Your task to perform on an android device: delete browsing data in the chrome app Image 0: 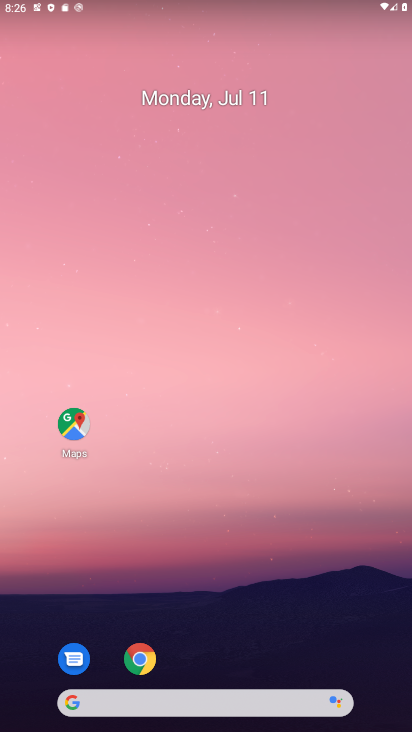
Step 0: drag from (222, 412) to (269, 245)
Your task to perform on an android device: delete browsing data in the chrome app Image 1: 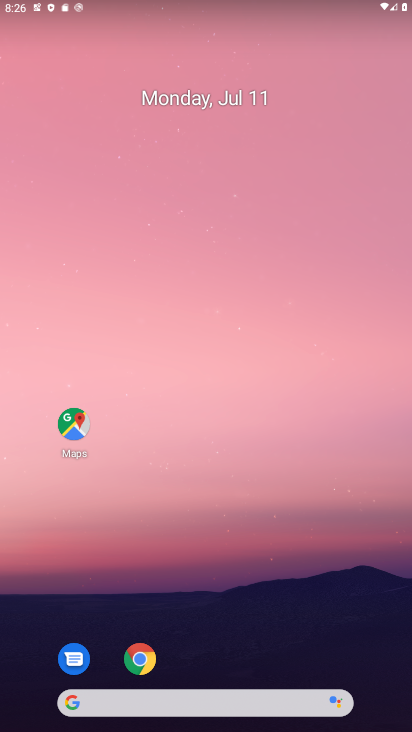
Step 1: drag from (176, 664) to (240, 112)
Your task to perform on an android device: delete browsing data in the chrome app Image 2: 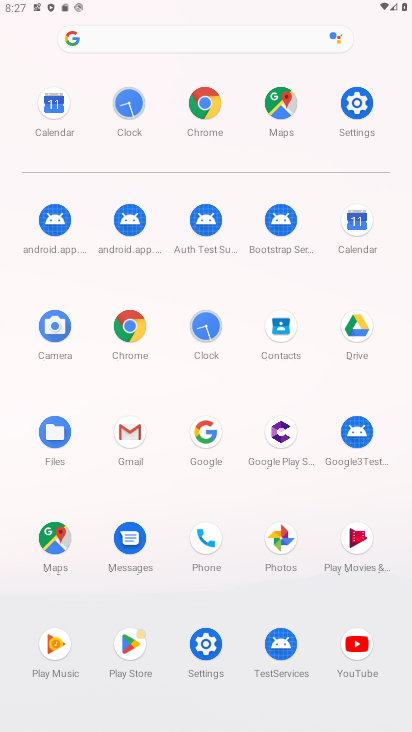
Step 2: click (121, 316)
Your task to perform on an android device: delete browsing data in the chrome app Image 3: 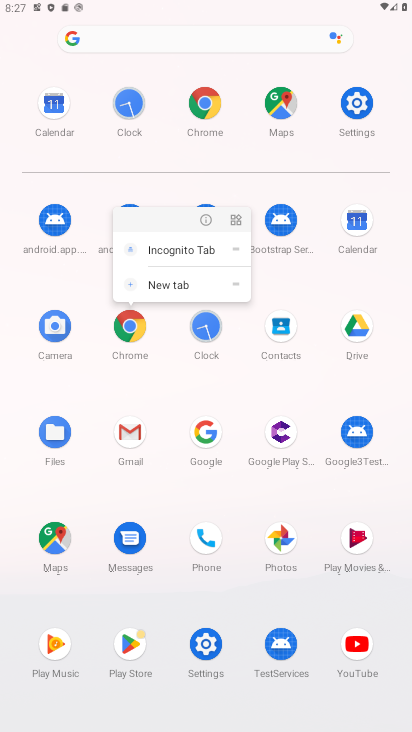
Step 3: click (205, 215)
Your task to perform on an android device: delete browsing data in the chrome app Image 4: 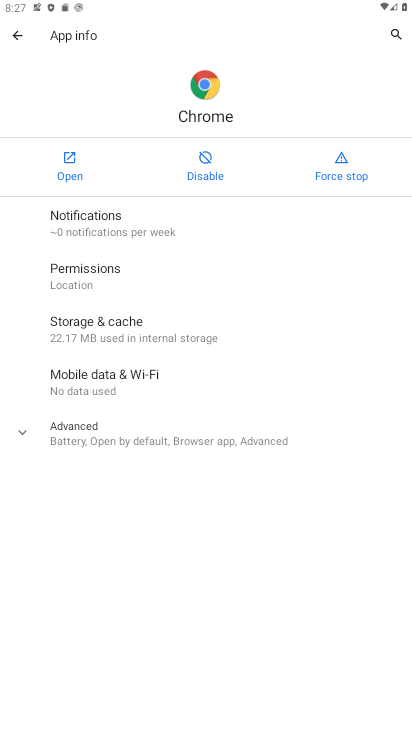
Step 4: click (90, 169)
Your task to perform on an android device: delete browsing data in the chrome app Image 5: 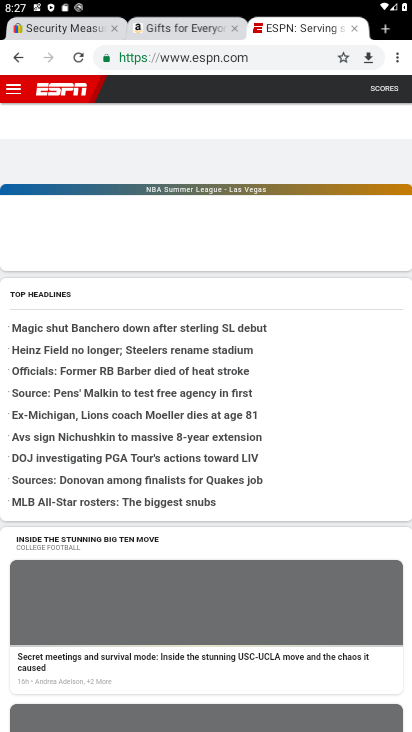
Step 5: drag from (172, 499) to (273, 568)
Your task to perform on an android device: delete browsing data in the chrome app Image 6: 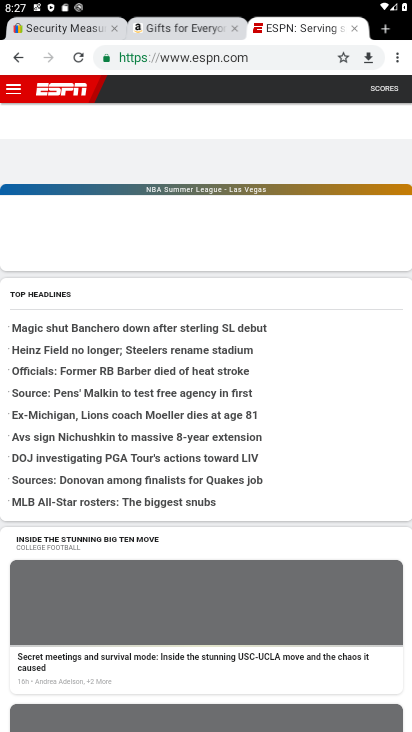
Step 6: click (395, 62)
Your task to perform on an android device: delete browsing data in the chrome app Image 7: 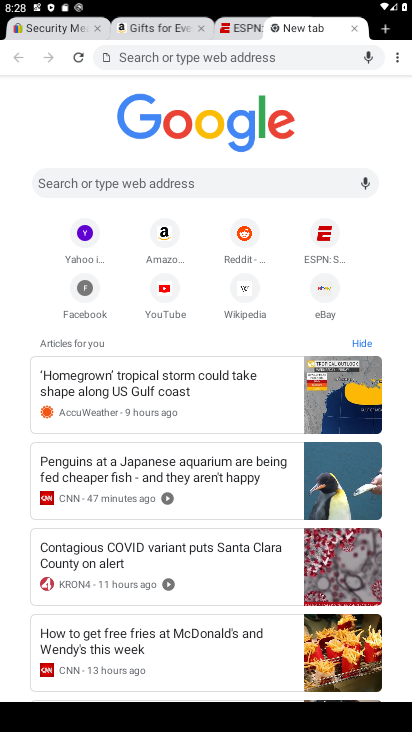
Step 7: click (392, 61)
Your task to perform on an android device: delete browsing data in the chrome app Image 8: 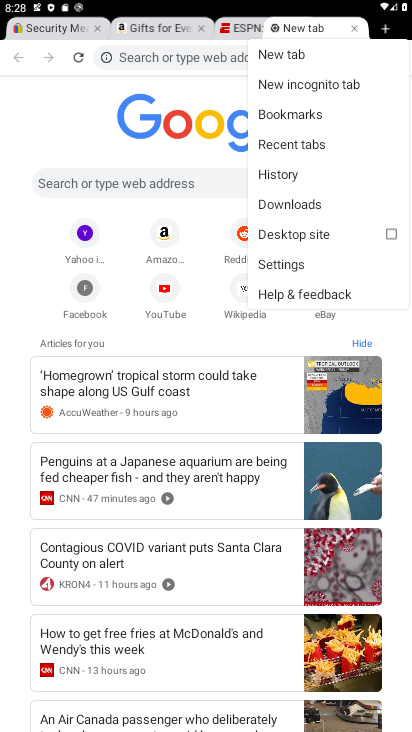
Step 8: click (268, 172)
Your task to perform on an android device: delete browsing data in the chrome app Image 9: 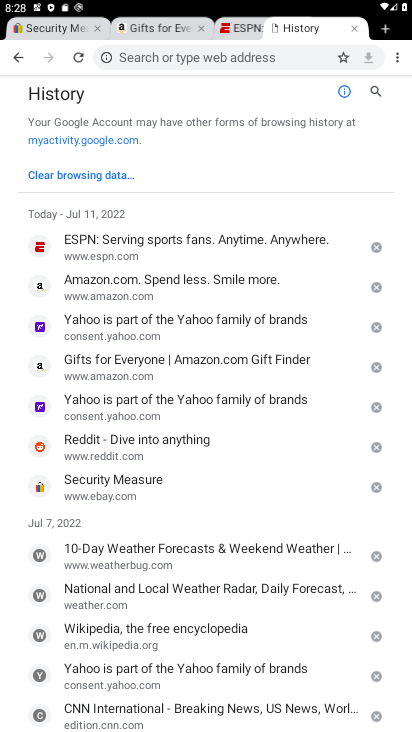
Step 9: drag from (143, 601) to (183, 729)
Your task to perform on an android device: delete browsing data in the chrome app Image 10: 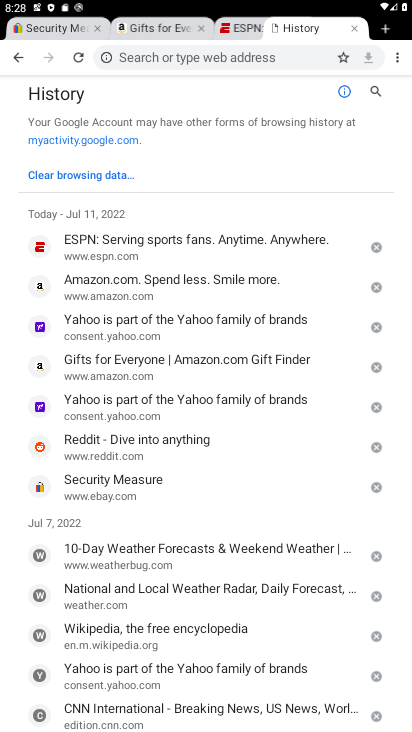
Step 10: click (52, 168)
Your task to perform on an android device: delete browsing data in the chrome app Image 11: 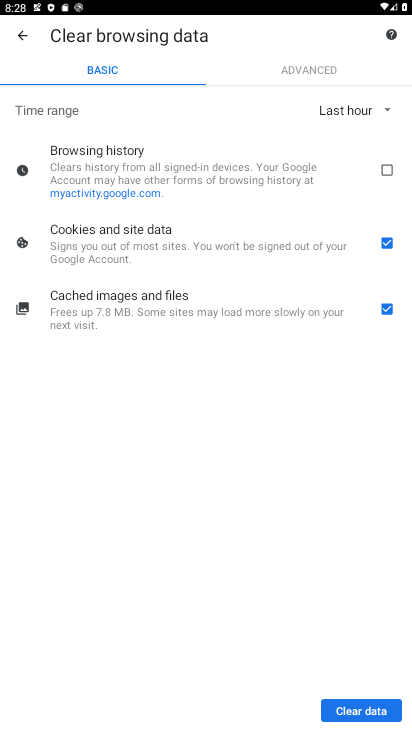
Step 11: click (347, 108)
Your task to perform on an android device: delete browsing data in the chrome app Image 12: 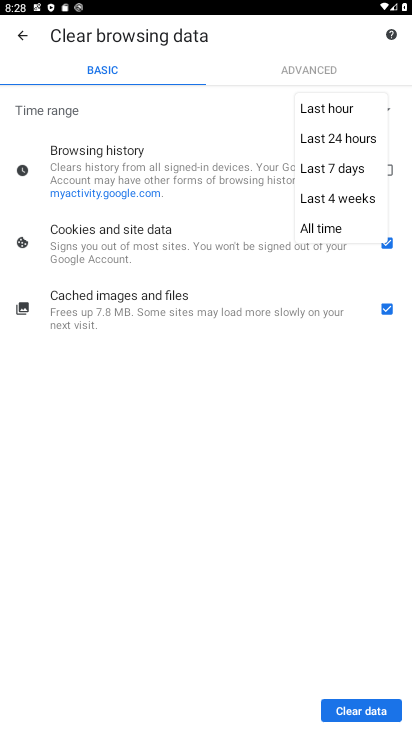
Step 12: click (321, 230)
Your task to perform on an android device: delete browsing data in the chrome app Image 13: 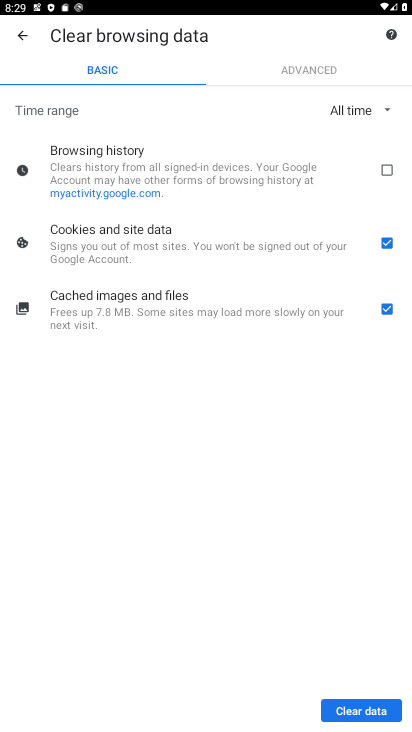
Step 13: click (371, 157)
Your task to perform on an android device: delete browsing data in the chrome app Image 14: 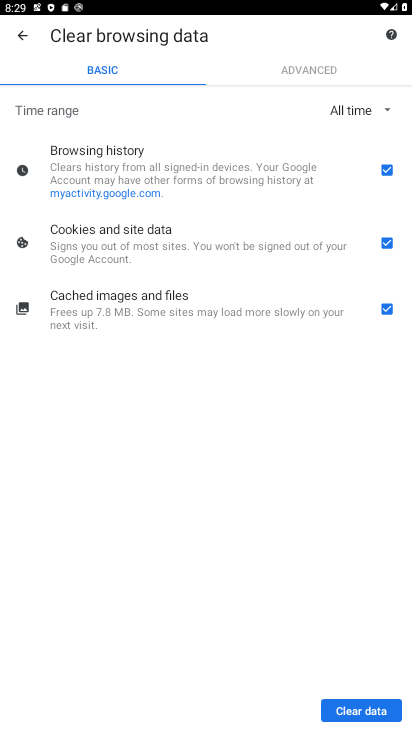
Step 14: click (371, 708)
Your task to perform on an android device: delete browsing data in the chrome app Image 15: 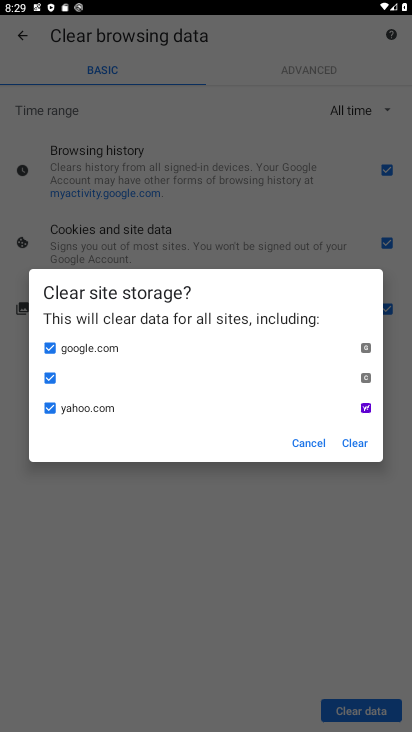
Step 15: click (345, 442)
Your task to perform on an android device: delete browsing data in the chrome app Image 16: 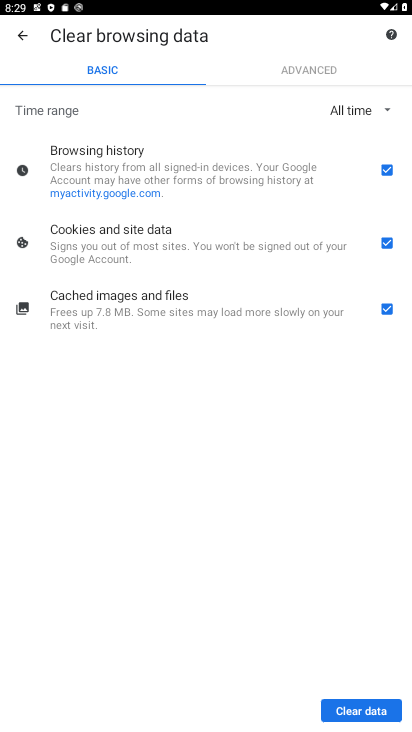
Step 16: task complete